Your task to perform on an android device: toggle translation in the chrome app Image 0: 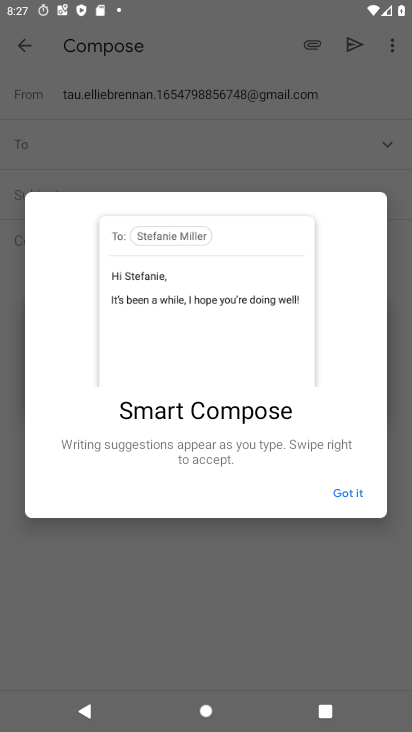
Step 0: press home button
Your task to perform on an android device: toggle translation in the chrome app Image 1: 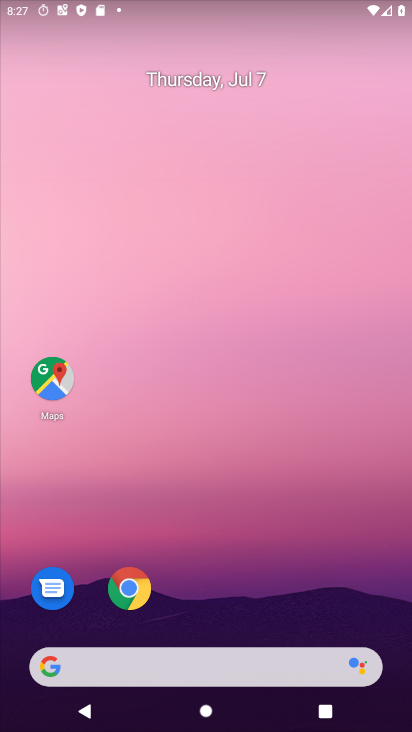
Step 1: drag from (164, 674) to (321, 127)
Your task to perform on an android device: toggle translation in the chrome app Image 2: 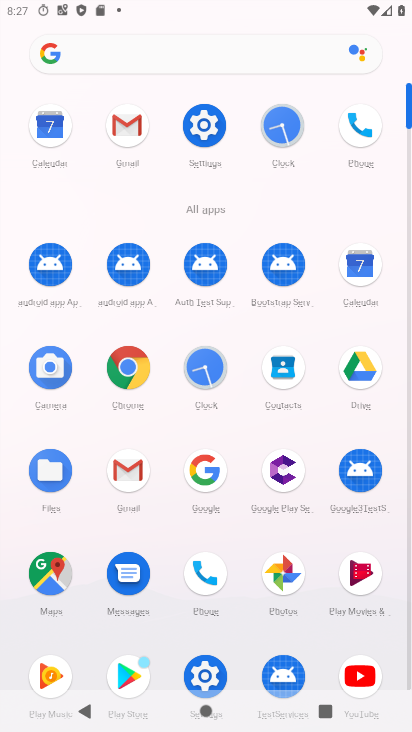
Step 2: click (133, 370)
Your task to perform on an android device: toggle translation in the chrome app Image 3: 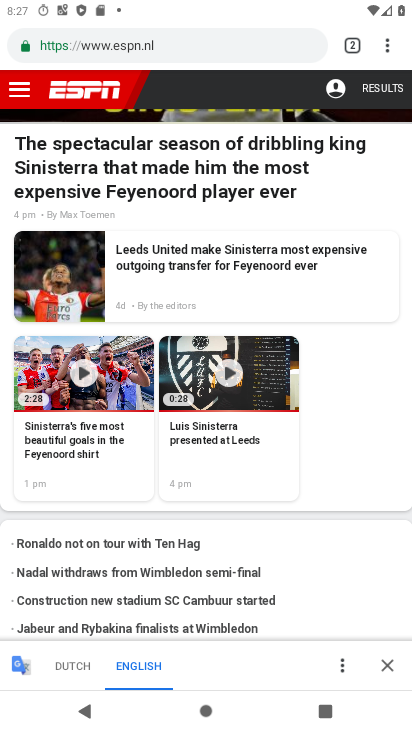
Step 3: drag from (384, 47) to (248, 555)
Your task to perform on an android device: toggle translation in the chrome app Image 4: 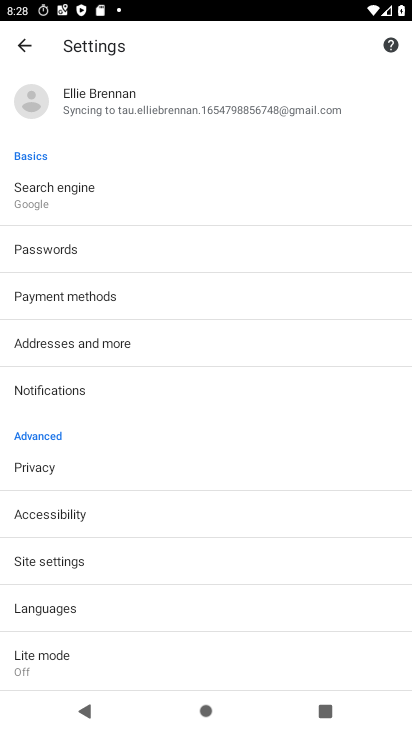
Step 4: click (21, 607)
Your task to perform on an android device: toggle translation in the chrome app Image 5: 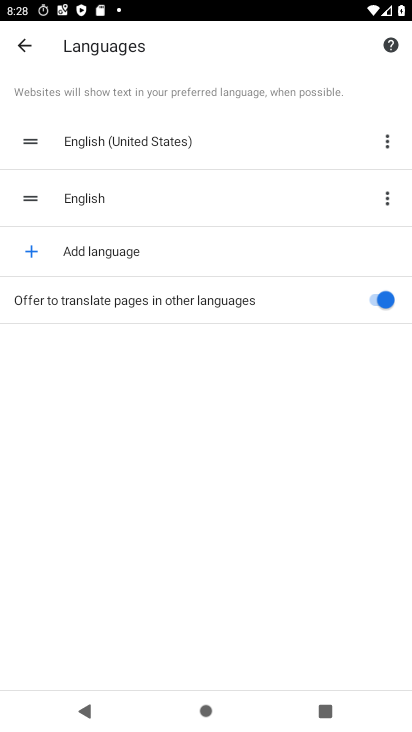
Step 5: click (375, 298)
Your task to perform on an android device: toggle translation in the chrome app Image 6: 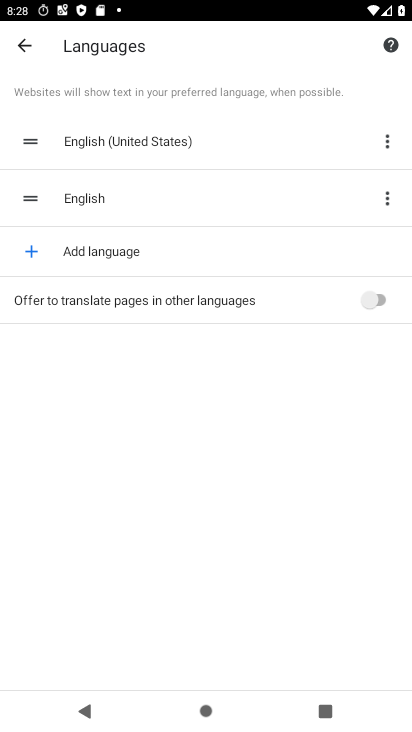
Step 6: task complete